Your task to perform on an android device: Go to sound settings Image 0: 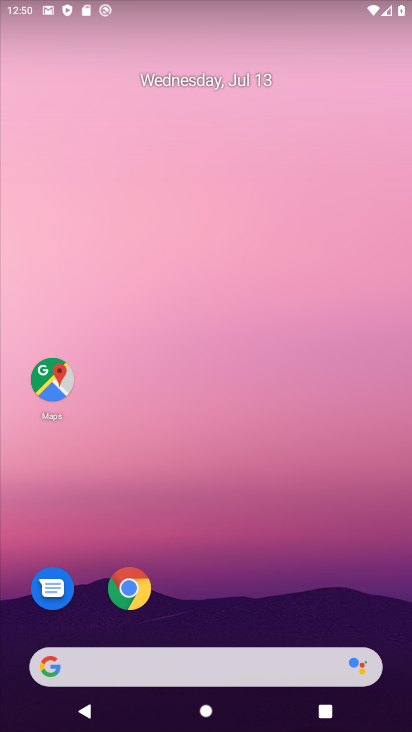
Step 0: drag from (312, 561) to (222, 136)
Your task to perform on an android device: Go to sound settings Image 1: 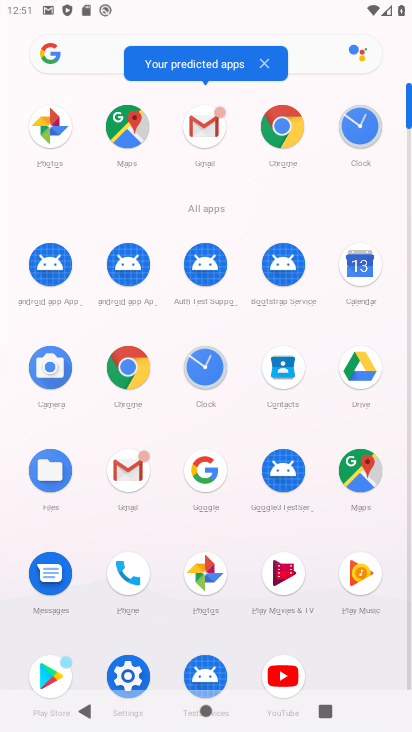
Step 1: click (125, 665)
Your task to perform on an android device: Go to sound settings Image 2: 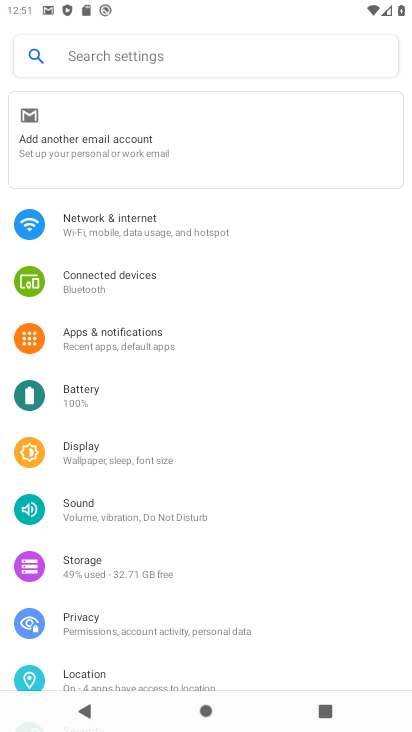
Step 2: click (96, 519)
Your task to perform on an android device: Go to sound settings Image 3: 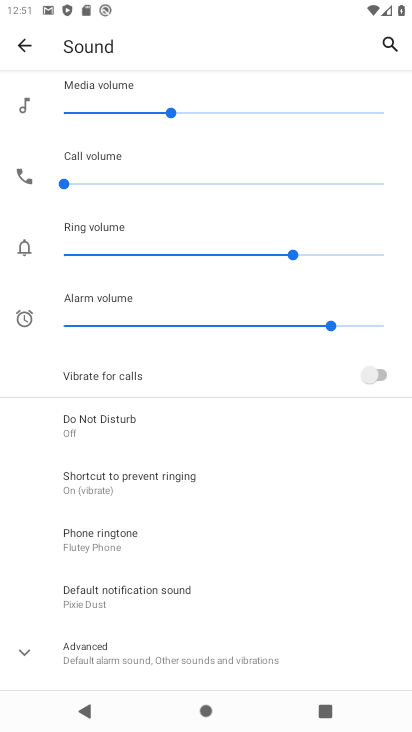
Step 3: task complete